Your task to perform on an android device: turn notification dots off Image 0: 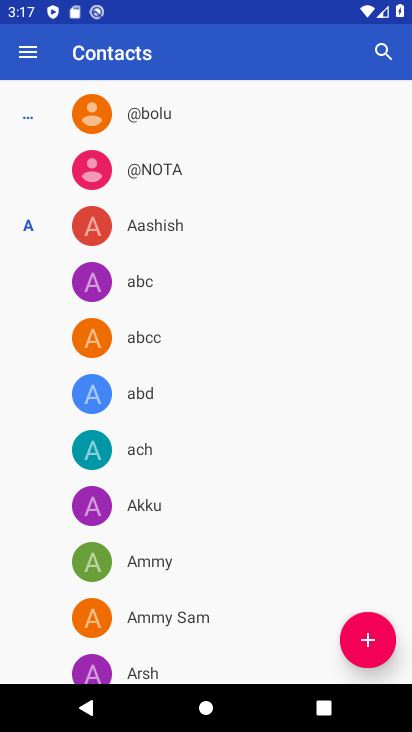
Step 0: press back button
Your task to perform on an android device: turn notification dots off Image 1: 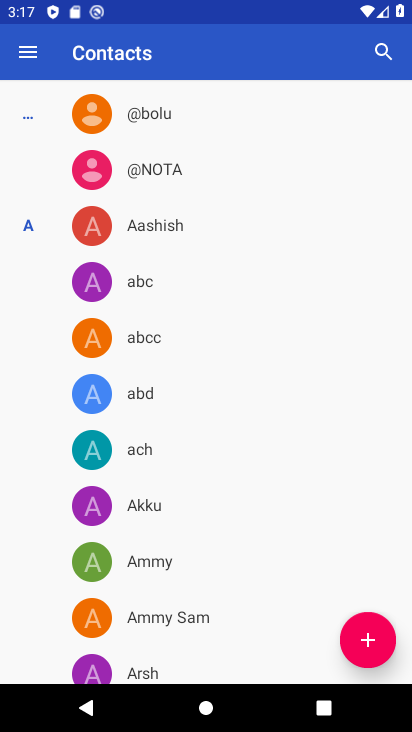
Step 1: press back button
Your task to perform on an android device: turn notification dots off Image 2: 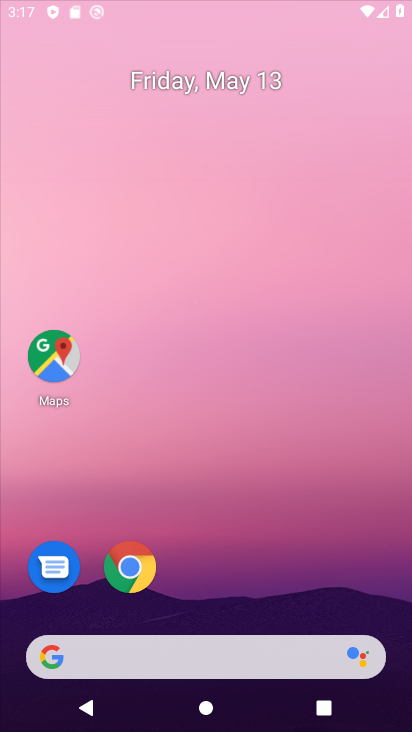
Step 2: press back button
Your task to perform on an android device: turn notification dots off Image 3: 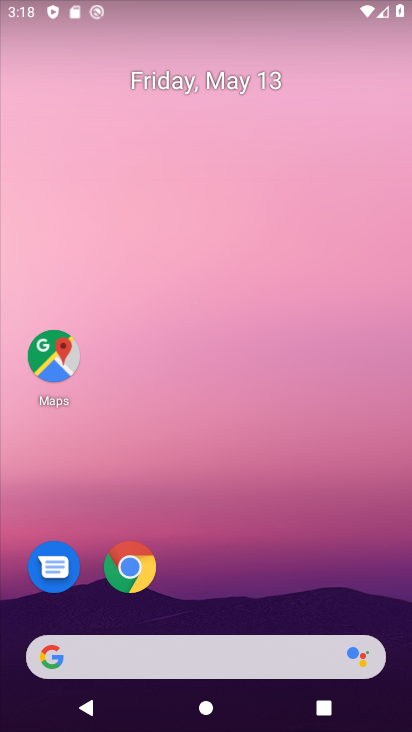
Step 3: drag from (235, 579) to (155, 9)
Your task to perform on an android device: turn notification dots off Image 4: 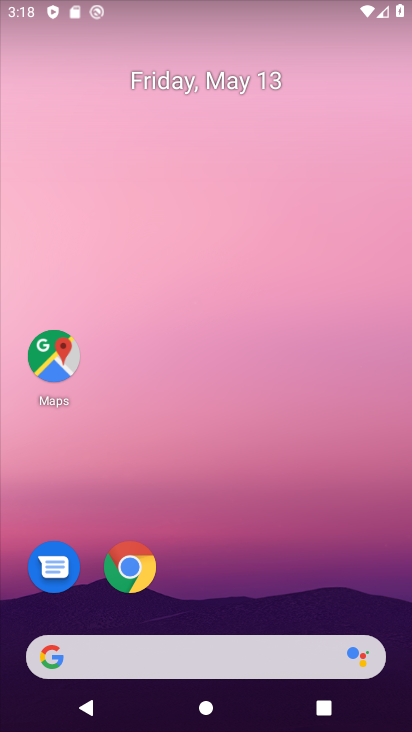
Step 4: drag from (265, 602) to (214, 43)
Your task to perform on an android device: turn notification dots off Image 5: 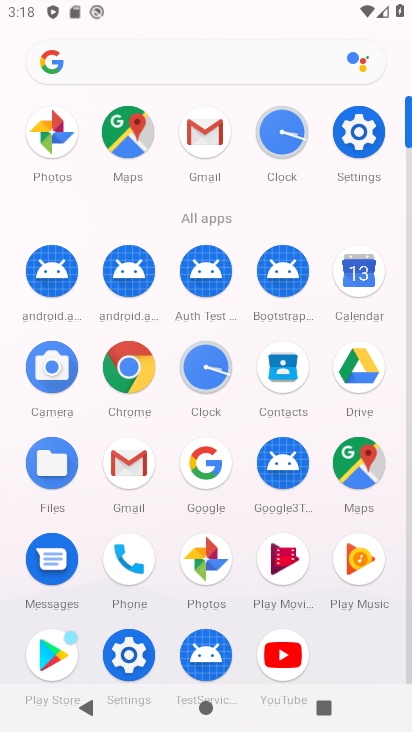
Step 5: drag from (231, 363) to (237, 24)
Your task to perform on an android device: turn notification dots off Image 6: 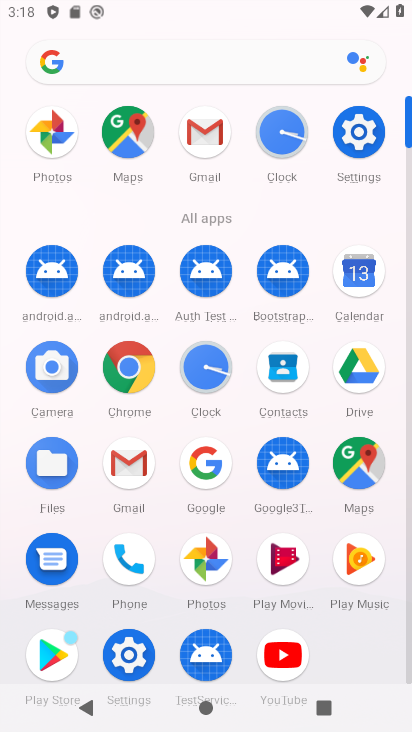
Step 6: click (359, 135)
Your task to perform on an android device: turn notification dots off Image 7: 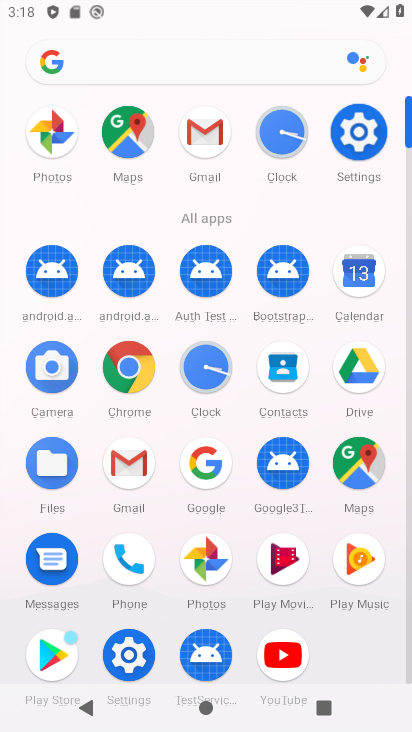
Step 7: click (359, 135)
Your task to perform on an android device: turn notification dots off Image 8: 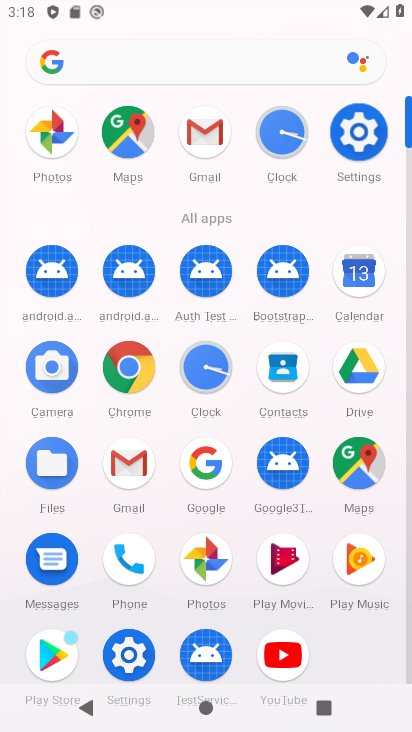
Step 8: click (359, 135)
Your task to perform on an android device: turn notification dots off Image 9: 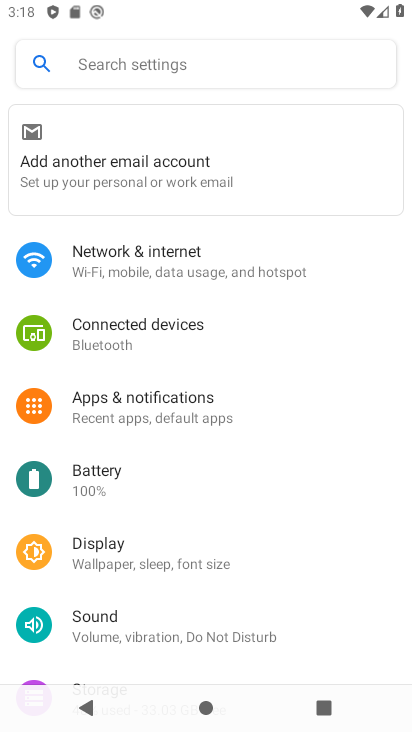
Step 9: click (134, 412)
Your task to perform on an android device: turn notification dots off Image 10: 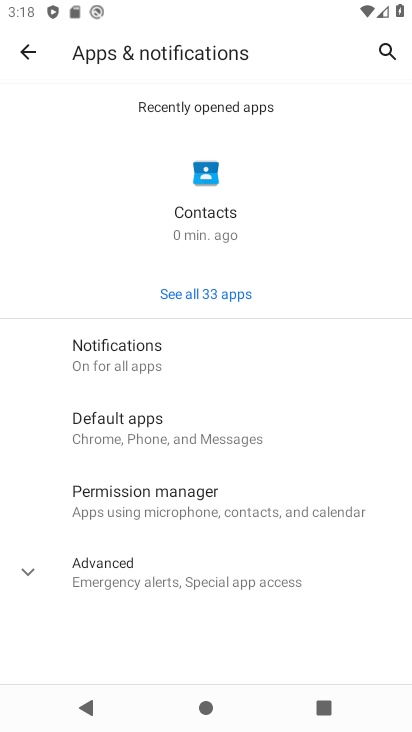
Step 10: click (130, 351)
Your task to perform on an android device: turn notification dots off Image 11: 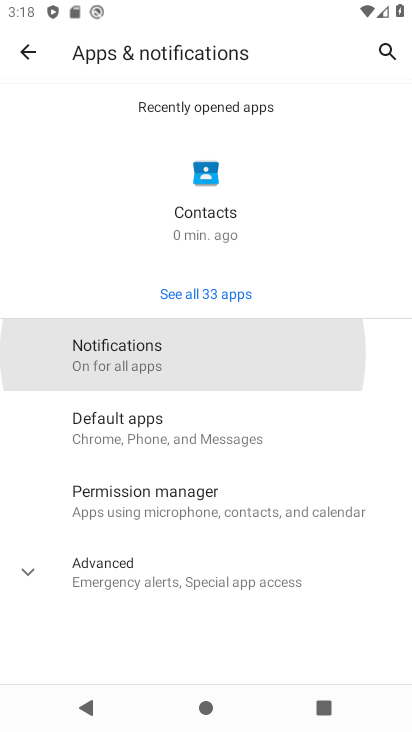
Step 11: click (129, 352)
Your task to perform on an android device: turn notification dots off Image 12: 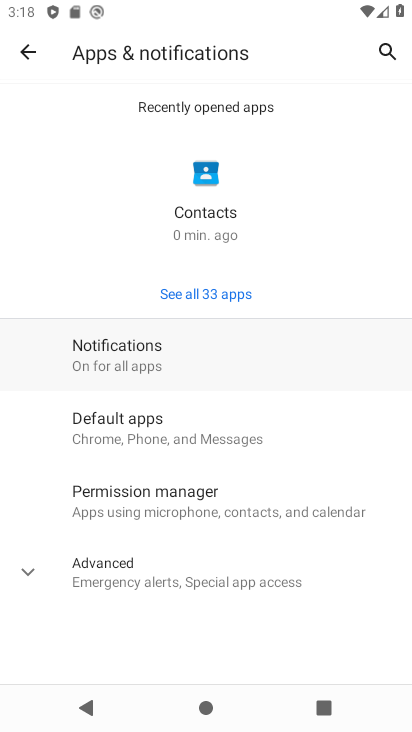
Step 12: click (124, 367)
Your task to perform on an android device: turn notification dots off Image 13: 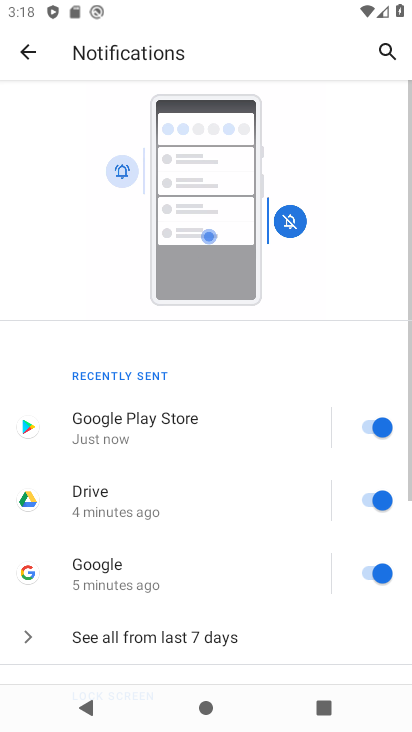
Step 13: drag from (170, 591) to (166, 8)
Your task to perform on an android device: turn notification dots off Image 14: 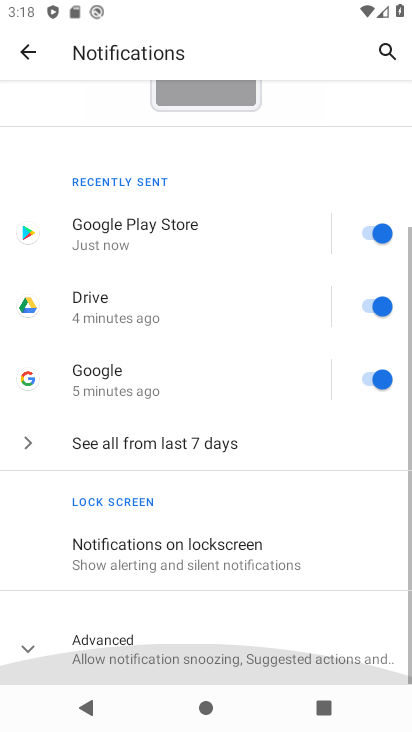
Step 14: drag from (168, 427) to (163, 97)
Your task to perform on an android device: turn notification dots off Image 15: 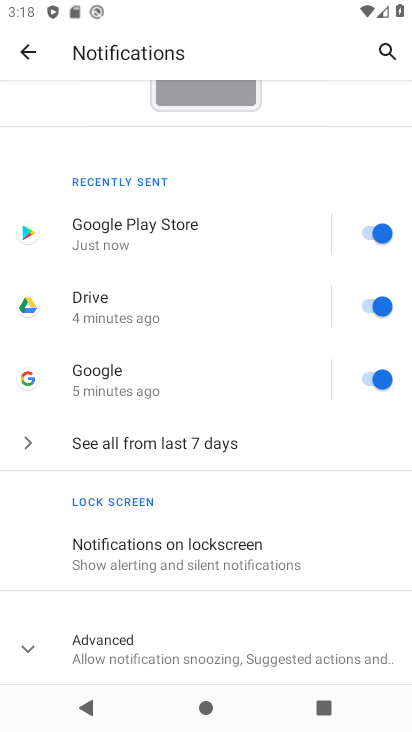
Step 15: drag from (218, 601) to (257, 194)
Your task to perform on an android device: turn notification dots off Image 16: 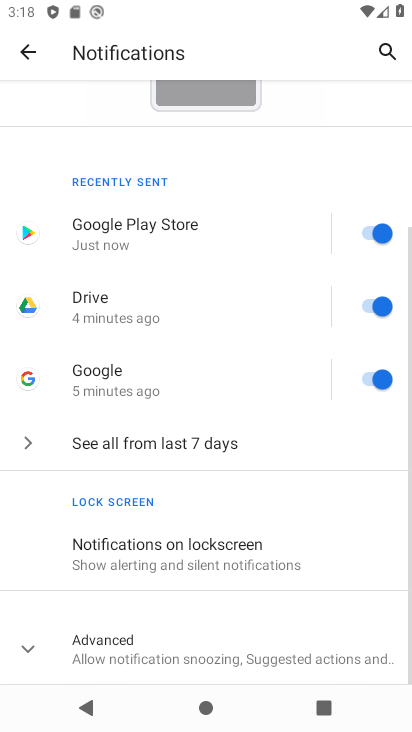
Step 16: click (154, 655)
Your task to perform on an android device: turn notification dots off Image 17: 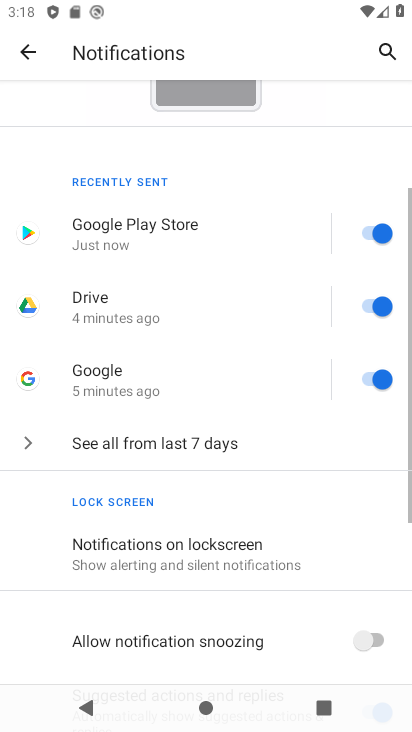
Step 17: drag from (193, 586) to (128, 84)
Your task to perform on an android device: turn notification dots off Image 18: 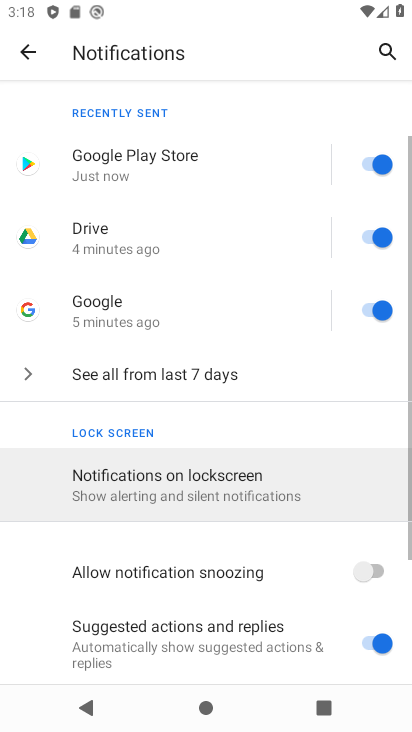
Step 18: drag from (182, 244) to (182, 158)
Your task to perform on an android device: turn notification dots off Image 19: 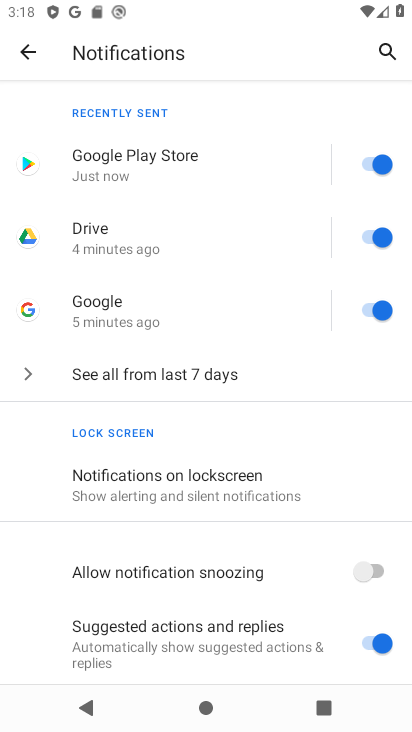
Step 19: drag from (226, 598) to (223, 157)
Your task to perform on an android device: turn notification dots off Image 20: 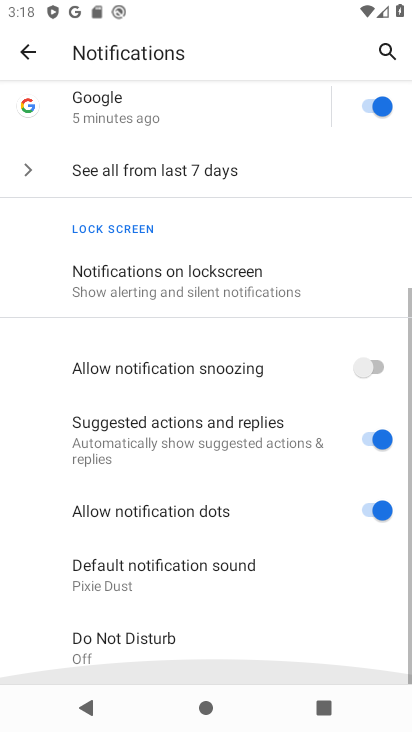
Step 20: drag from (292, 525) to (289, 219)
Your task to perform on an android device: turn notification dots off Image 21: 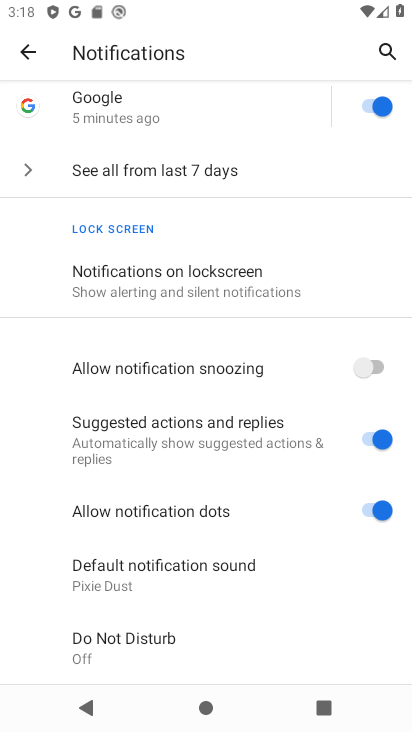
Step 21: click (236, 512)
Your task to perform on an android device: turn notification dots off Image 22: 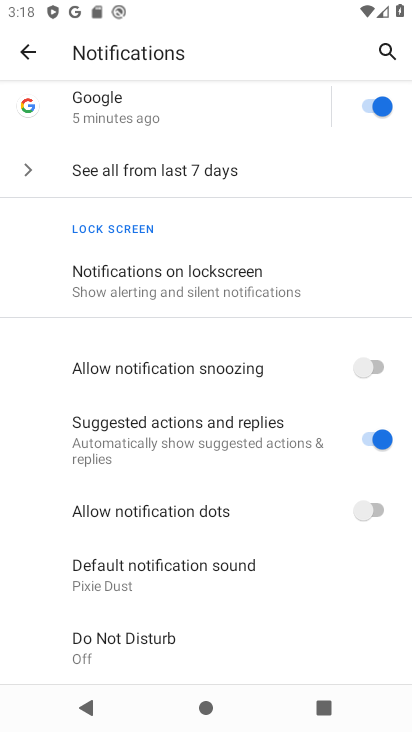
Step 22: task complete